Your task to perform on an android device: turn off smart reply in the gmail app Image 0: 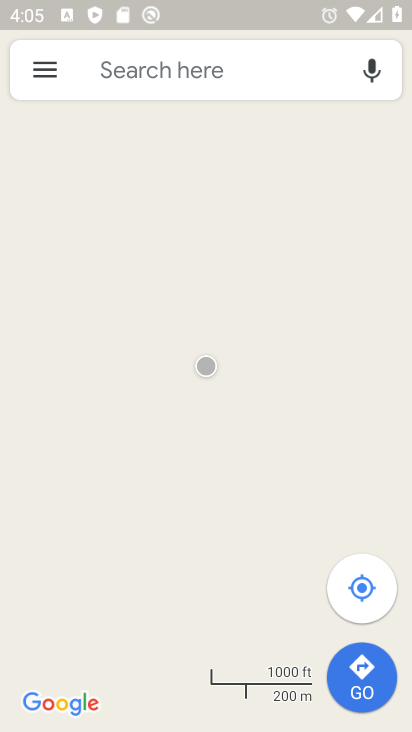
Step 0: press home button
Your task to perform on an android device: turn off smart reply in the gmail app Image 1: 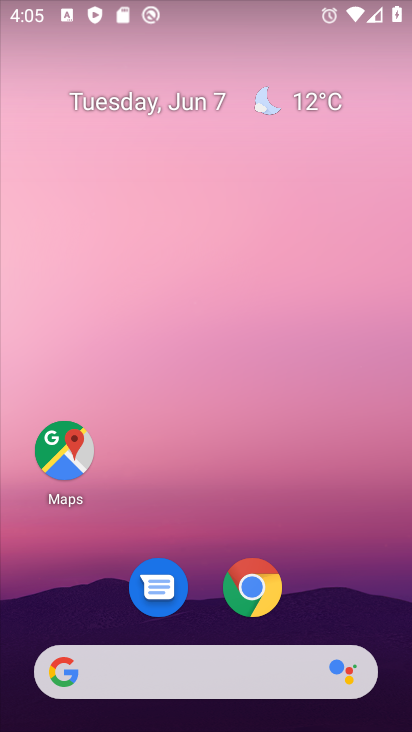
Step 1: drag from (228, 531) to (230, 234)
Your task to perform on an android device: turn off smart reply in the gmail app Image 2: 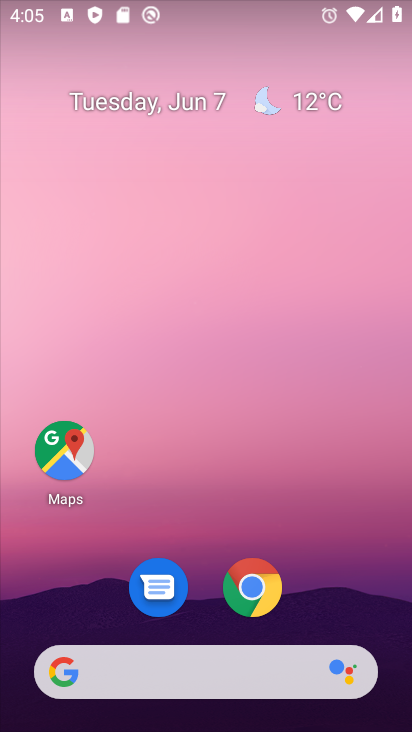
Step 2: drag from (210, 537) to (249, 25)
Your task to perform on an android device: turn off smart reply in the gmail app Image 3: 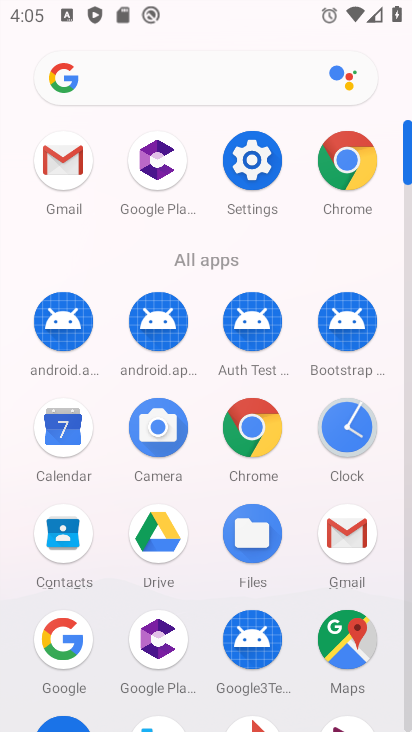
Step 3: click (369, 543)
Your task to perform on an android device: turn off smart reply in the gmail app Image 4: 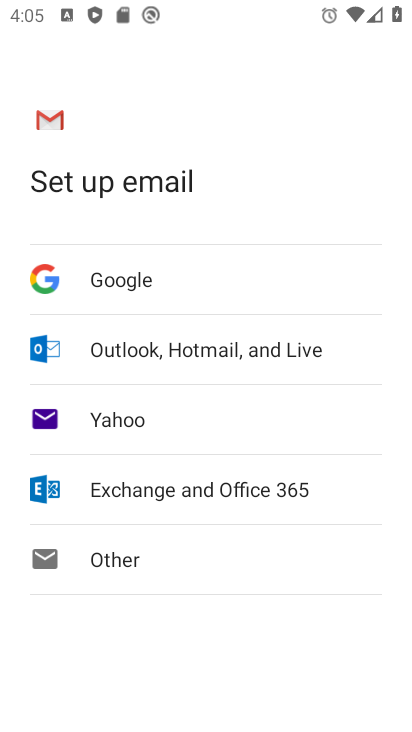
Step 4: press back button
Your task to perform on an android device: turn off smart reply in the gmail app Image 5: 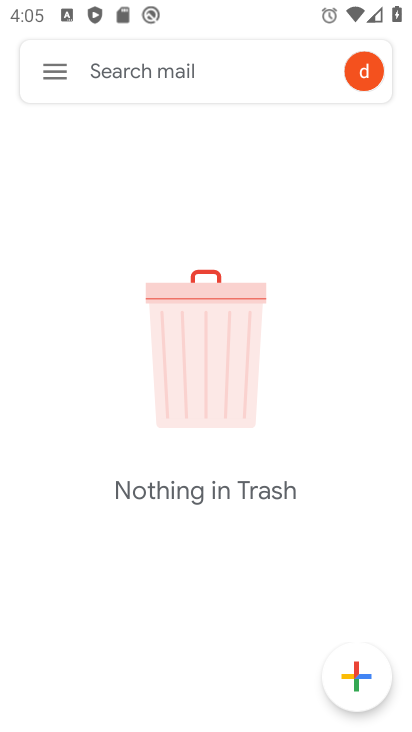
Step 5: click (53, 73)
Your task to perform on an android device: turn off smart reply in the gmail app Image 6: 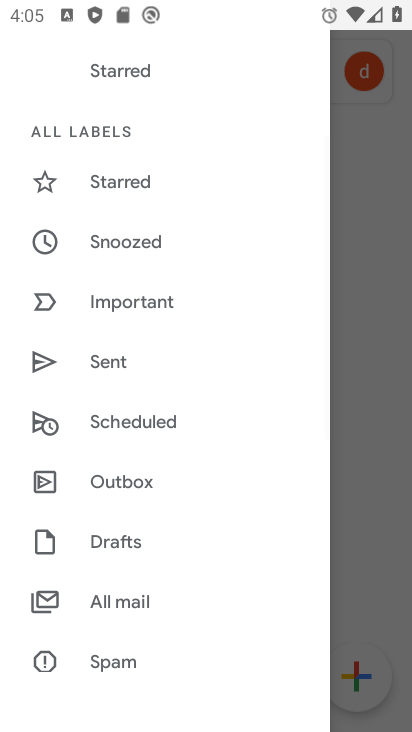
Step 6: drag from (172, 567) to (176, 387)
Your task to perform on an android device: turn off smart reply in the gmail app Image 7: 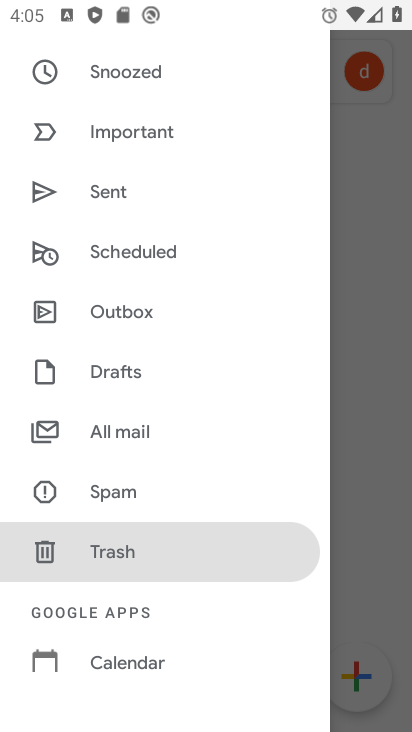
Step 7: drag from (140, 503) to (211, 54)
Your task to perform on an android device: turn off smart reply in the gmail app Image 8: 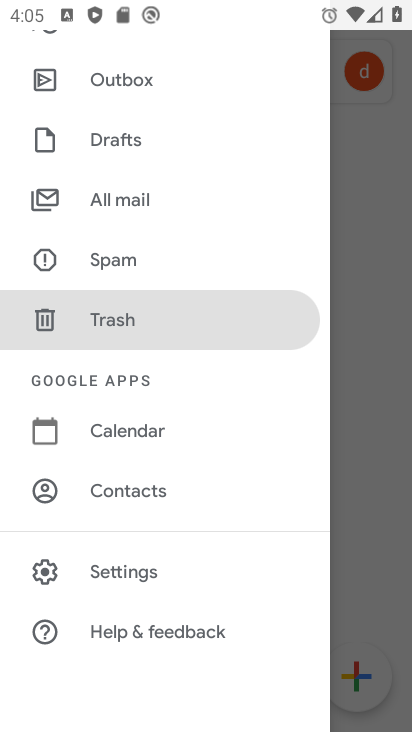
Step 8: click (144, 572)
Your task to perform on an android device: turn off smart reply in the gmail app Image 9: 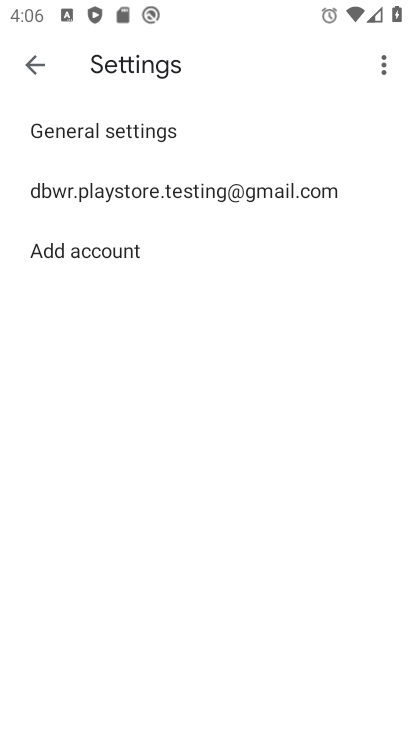
Step 9: click (253, 192)
Your task to perform on an android device: turn off smart reply in the gmail app Image 10: 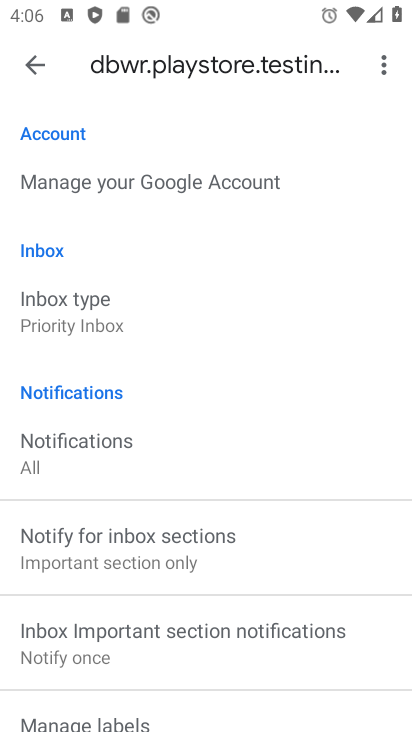
Step 10: drag from (234, 514) to (256, 276)
Your task to perform on an android device: turn off smart reply in the gmail app Image 11: 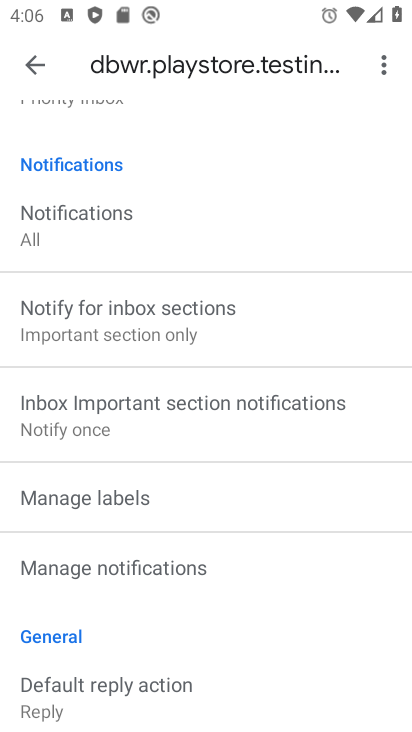
Step 11: drag from (261, 566) to (304, 96)
Your task to perform on an android device: turn off smart reply in the gmail app Image 12: 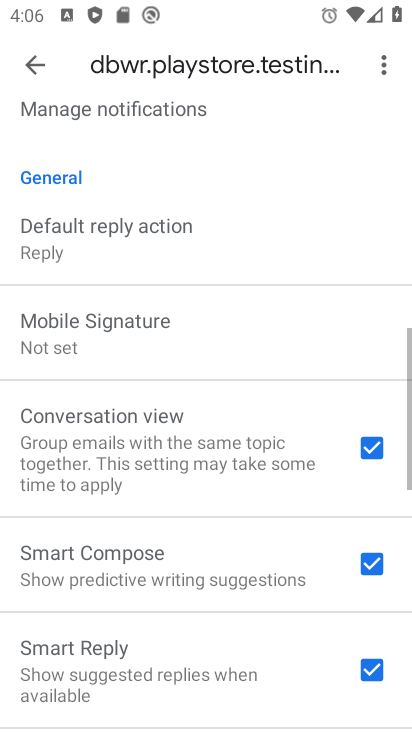
Step 12: drag from (278, 520) to (287, 428)
Your task to perform on an android device: turn off smart reply in the gmail app Image 13: 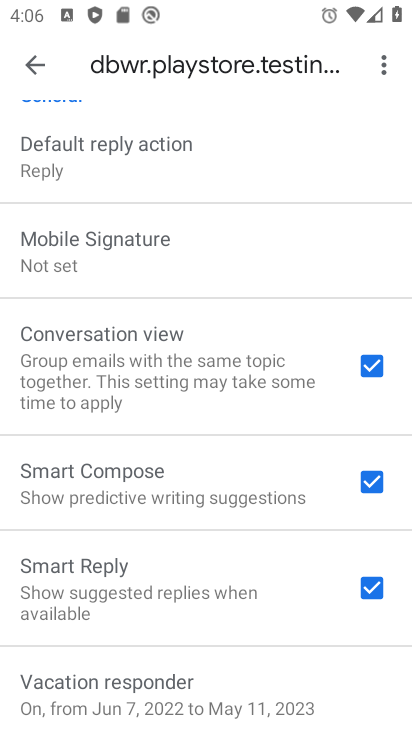
Step 13: click (374, 582)
Your task to perform on an android device: turn off smart reply in the gmail app Image 14: 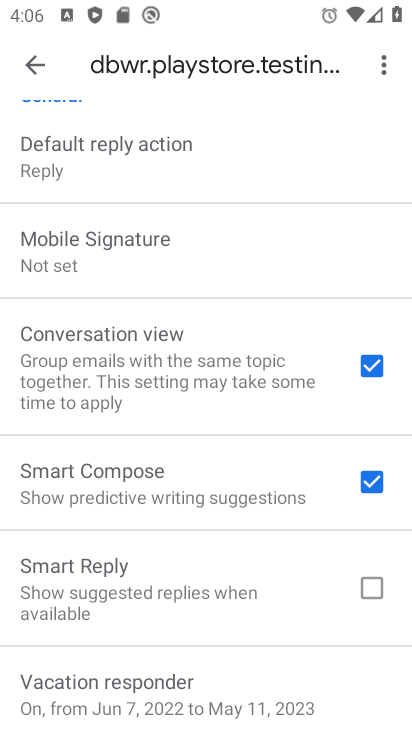
Step 14: task complete